Your task to perform on an android device: change your default location settings in chrome Image 0: 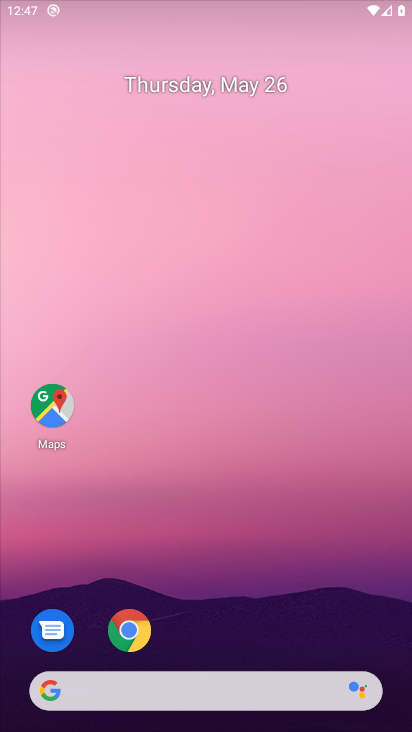
Step 0: press home button
Your task to perform on an android device: change your default location settings in chrome Image 1: 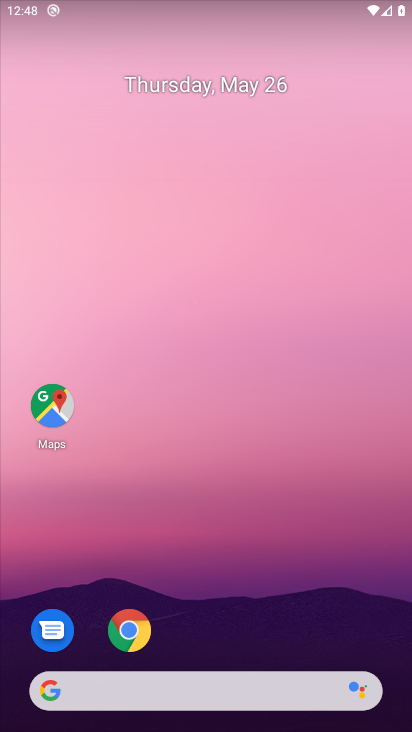
Step 1: click (129, 626)
Your task to perform on an android device: change your default location settings in chrome Image 2: 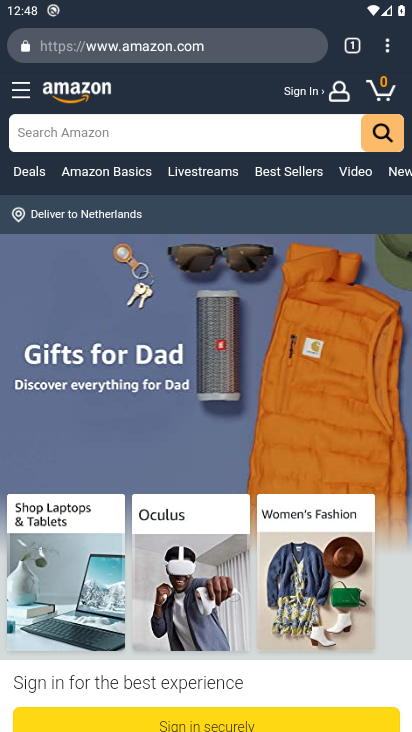
Step 2: click (387, 43)
Your task to perform on an android device: change your default location settings in chrome Image 3: 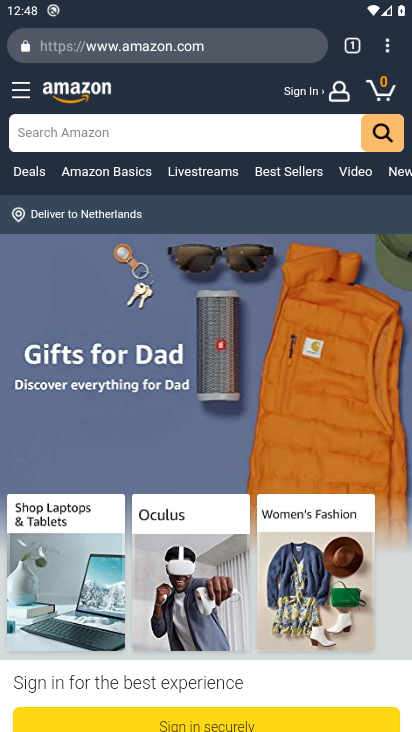
Step 3: click (392, 45)
Your task to perform on an android device: change your default location settings in chrome Image 4: 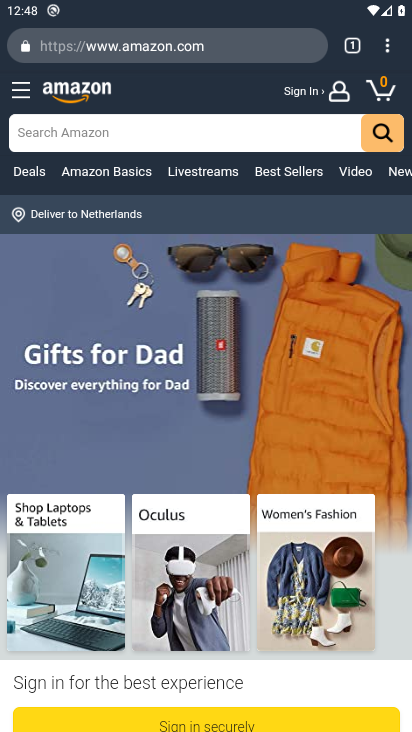
Step 4: click (392, 45)
Your task to perform on an android device: change your default location settings in chrome Image 5: 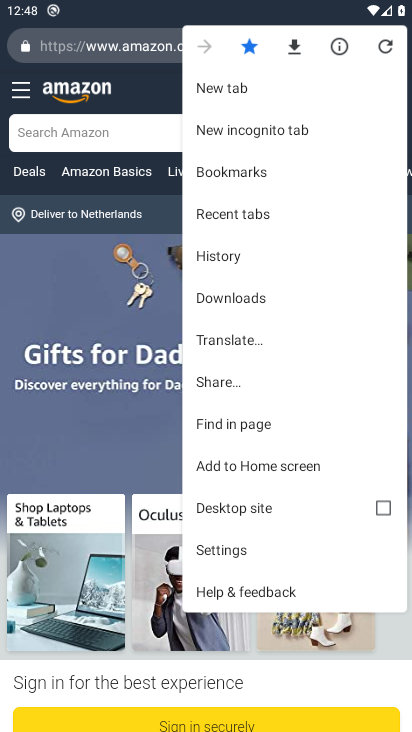
Step 5: click (247, 552)
Your task to perform on an android device: change your default location settings in chrome Image 6: 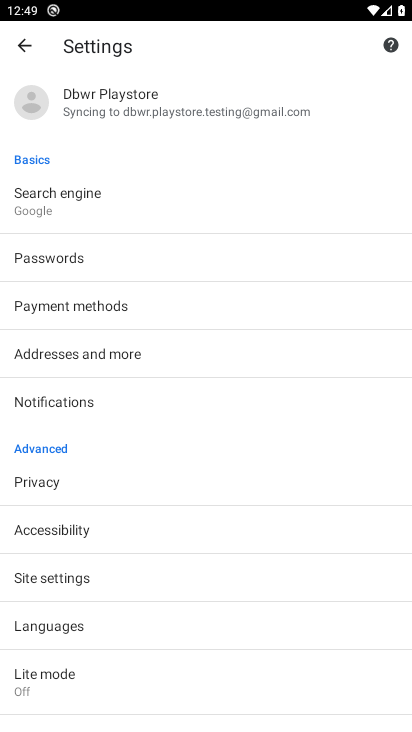
Step 6: click (105, 570)
Your task to perform on an android device: change your default location settings in chrome Image 7: 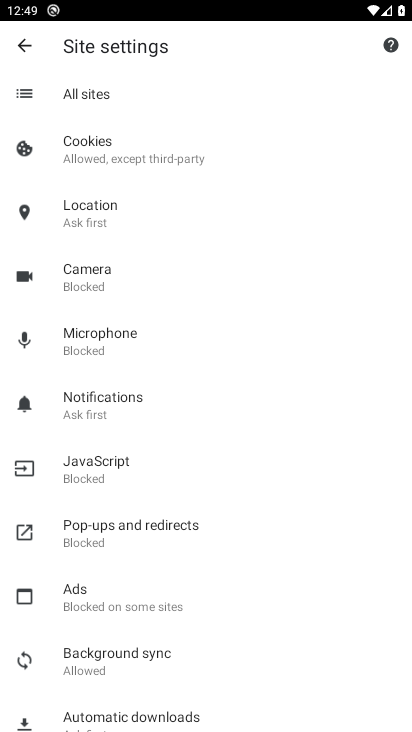
Step 7: click (172, 208)
Your task to perform on an android device: change your default location settings in chrome Image 8: 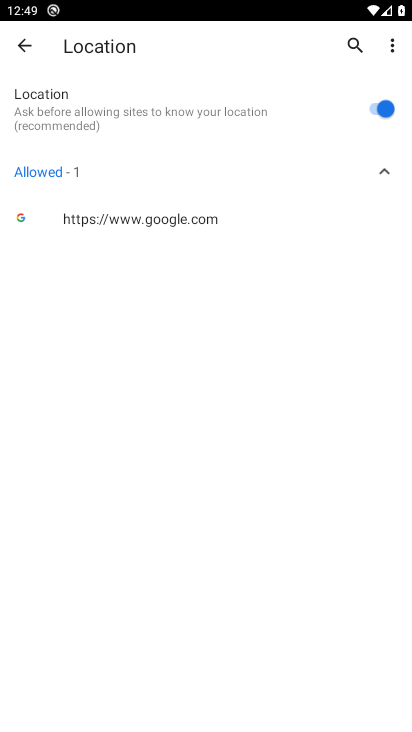
Step 8: click (372, 102)
Your task to perform on an android device: change your default location settings in chrome Image 9: 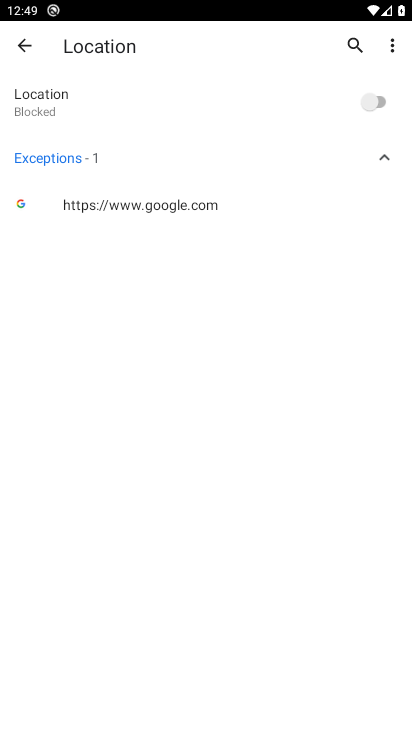
Step 9: task complete